Your task to perform on an android device: Open eBay Image 0: 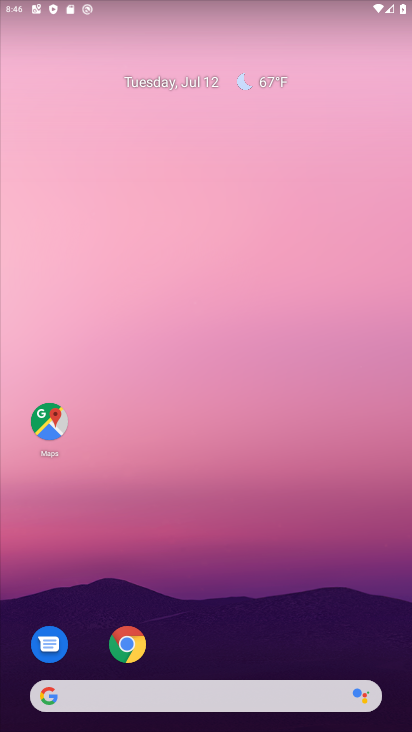
Step 0: drag from (171, 567) to (175, 190)
Your task to perform on an android device: Open eBay Image 1: 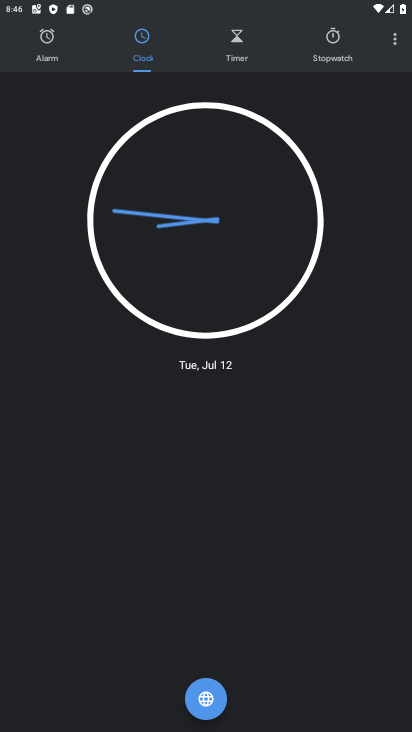
Step 1: press home button
Your task to perform on an android device: Open eBay Image 2: 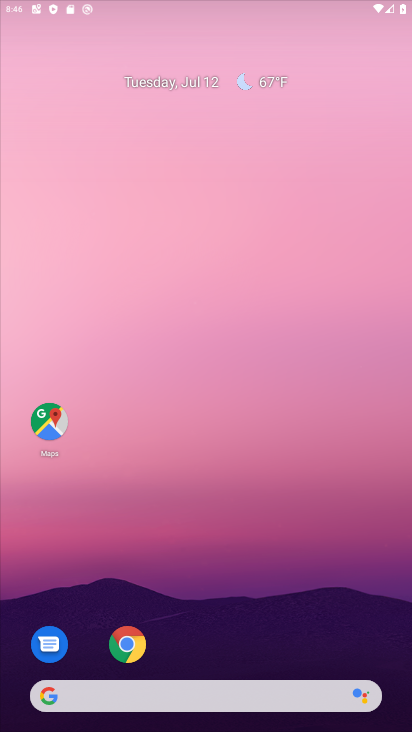
Step 2: drag from (203, 575) to (209, 92)
Your task to perform on an android device: Open eBay Image 3: 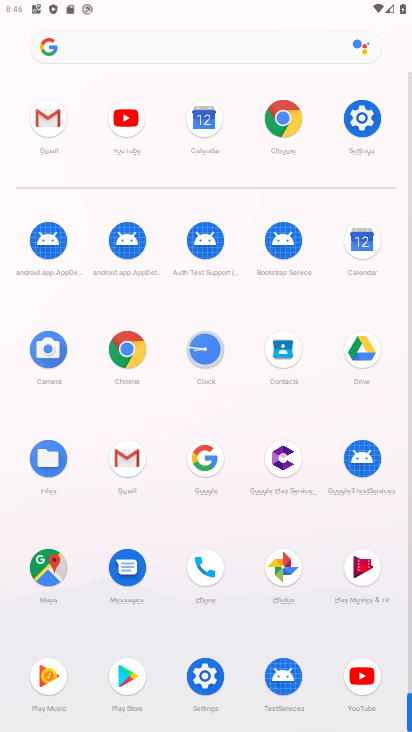
Step 3: click (289, 115)
Your task to perform on an android device: Open eBay Image 4: 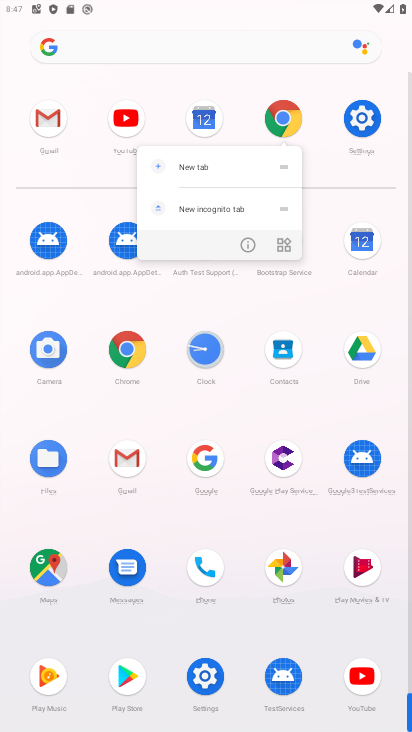
Step 4: click (250, 240)
Your task to perform on an android device: Open eBay Image 5: 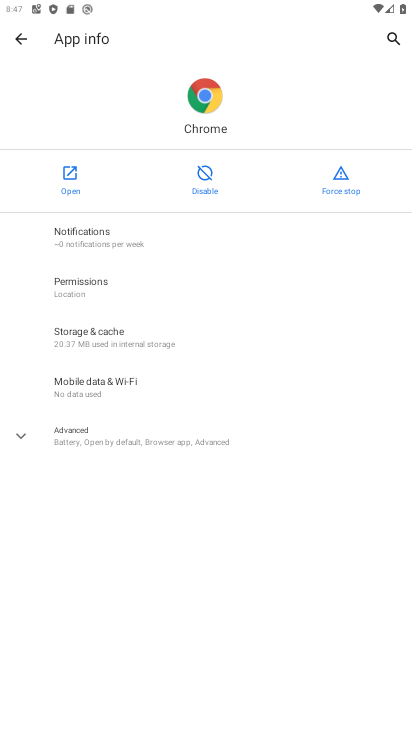
Step 5: click (85, 178)
Your task to perform on an android device: Open eBay Image 6: 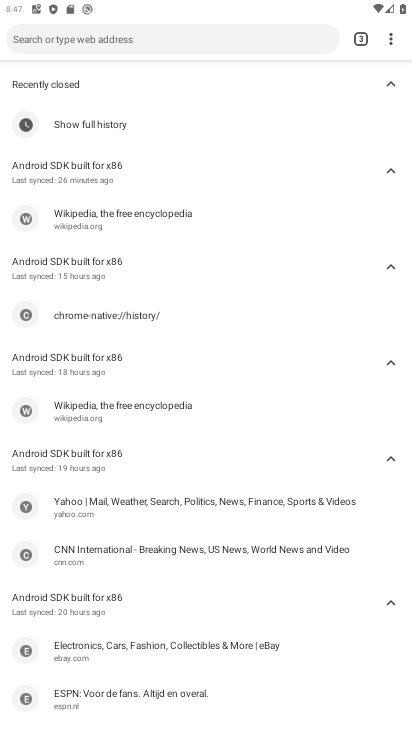
Step 6: drag from (176, 579) to (226, 316)
Your task to perform on an android device: Open eBay Image 7: 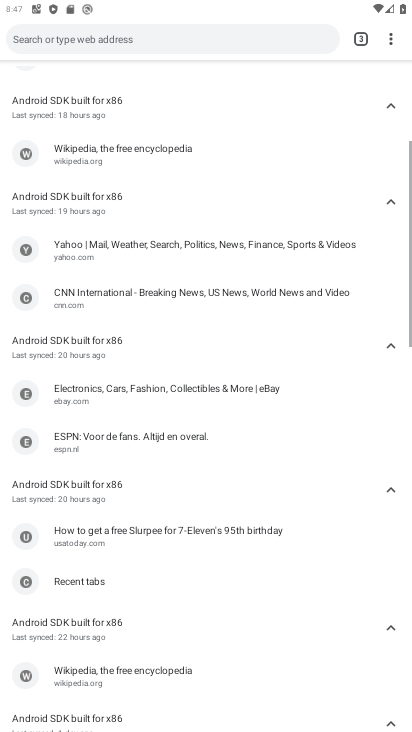
Step 7: drag from (210, 168) to (230, 559)
Your task to perform on an android device: Open eBay Image 8: 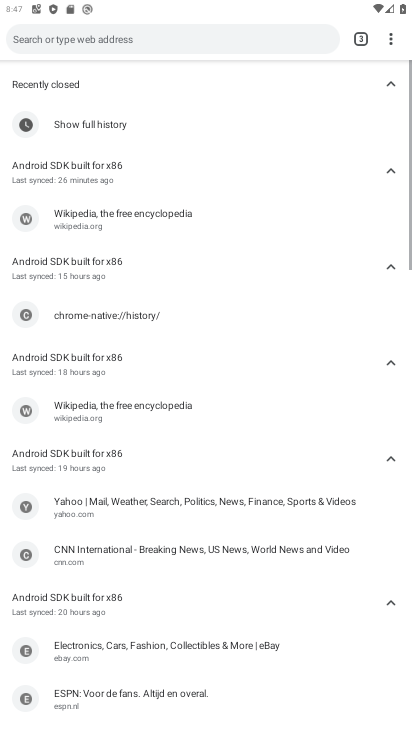
Step 8: drag from (133, 133) to (255, 719)
Your task to perform on an android device: Open eBay Image 9: 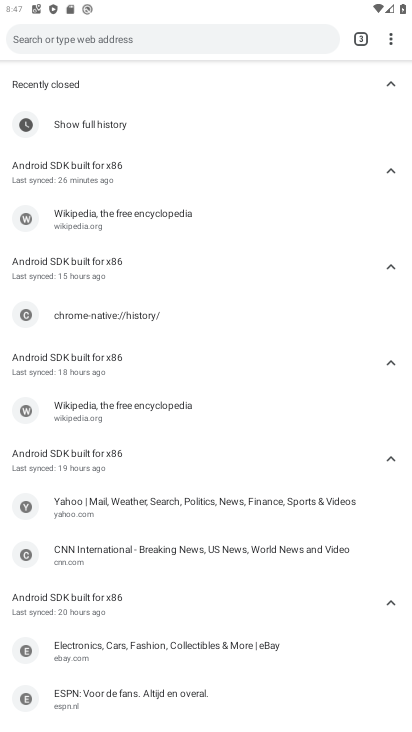
Step 9: click (394, 31)
Your task to perform on an android device: Open eBay Image 10: 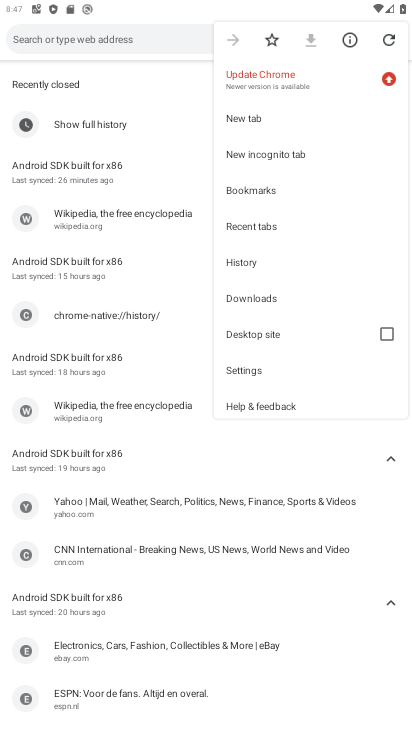
Step 10: click (61, 42)
Your task to perform on an android device: Open eBay Image 11: 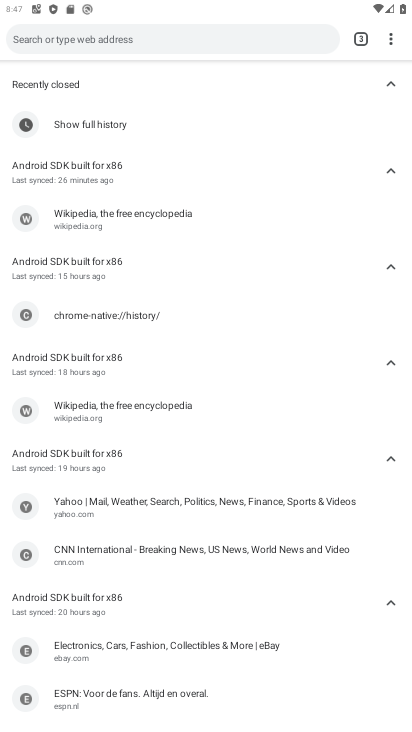
Step 11: click (89, 33)
Your task to perform on an android device: Open eBay Image 12: 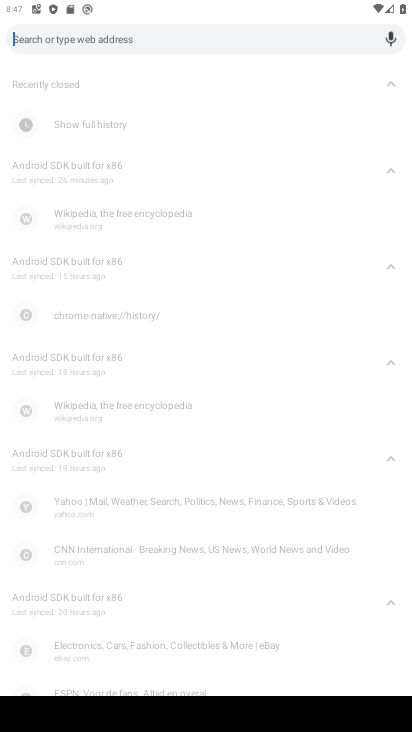
Step 12: type "ebay"
Your task to perform on an android device: Open eBay Image 13: 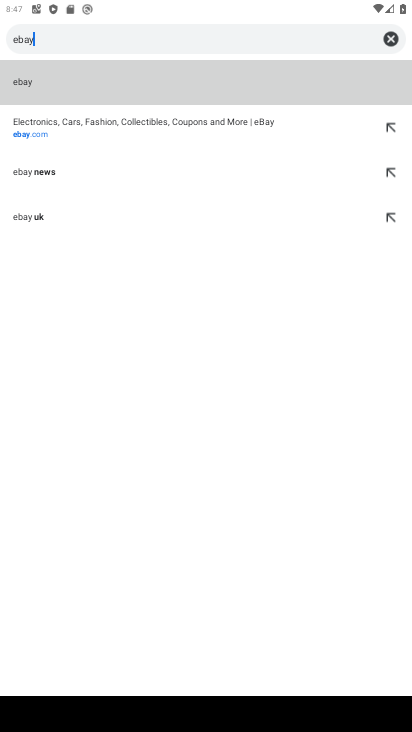
Step 13: click (30, 130)
Your task to perform on an android device: Open eBay Image 14: 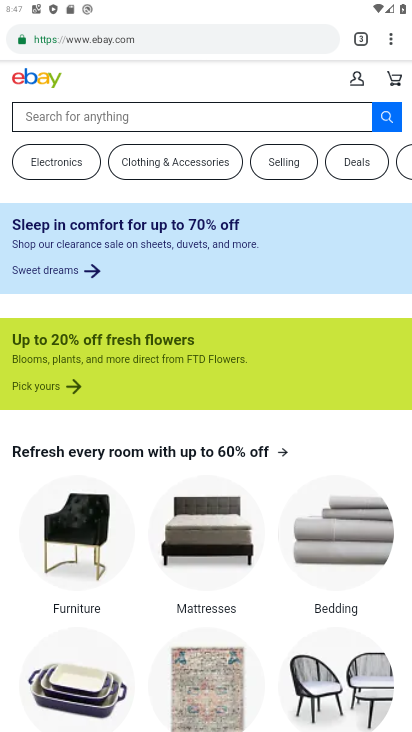
Step 14: task complete